Your task to perform on an android device: What's the weather going to be tomorrow? Image 0: 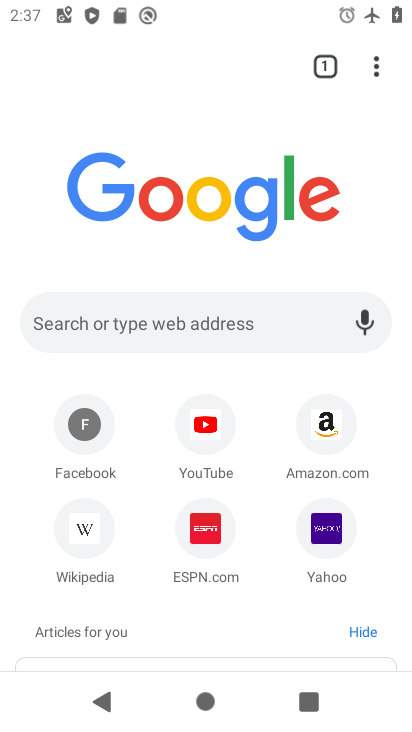
Step 0: press home button
Your task to perform on an android device: What's the weather going to be tomorrow? Image 1: 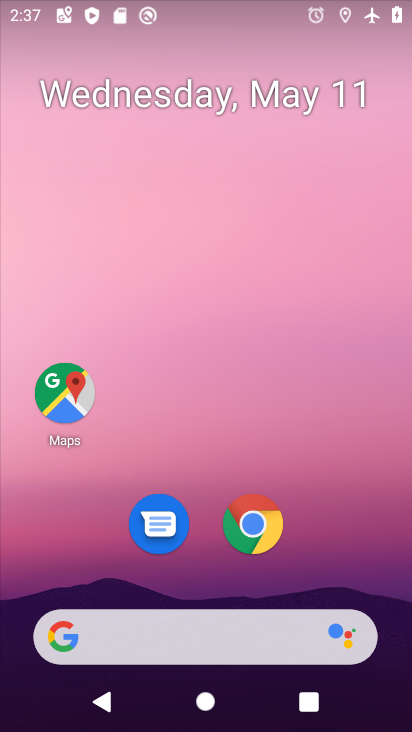
Step 1: click (261, 644)
Your task to perform on an android device: What's the weather going to be tomorrow? Image 2: 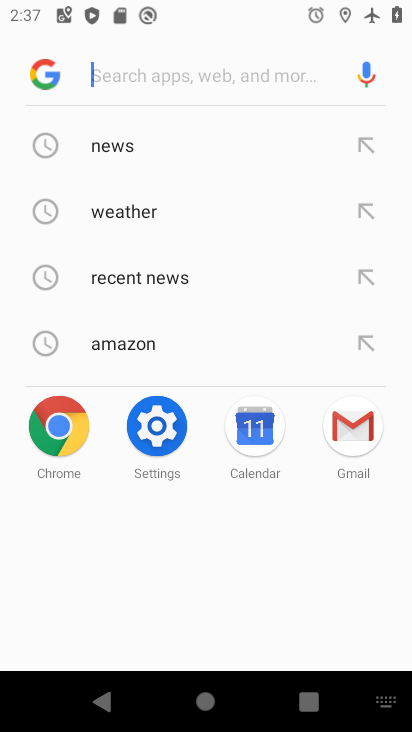
Step 2: click (39, 64)
Your task to perform on an android device: What's the weather going to be tomorrow? Image 3: 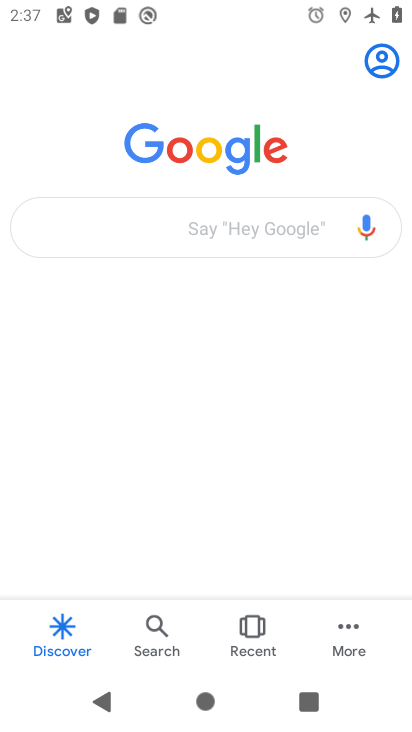
Step 3: click (193, 211)
Your task to perform on an android device: What's the weather going to be tomorrow? Image 4: 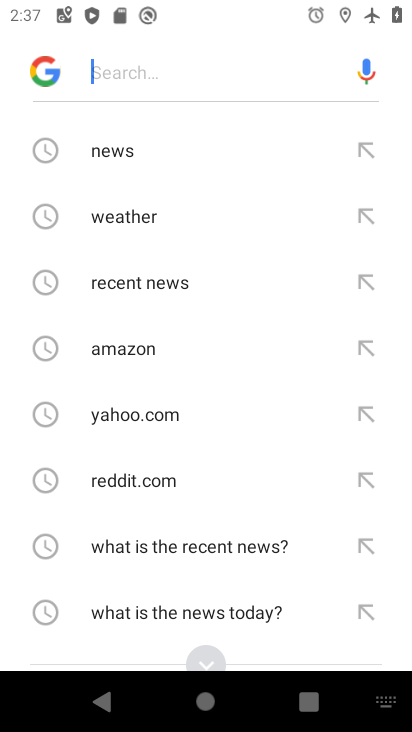
Step 4: click (137, 208)
Your task to perform on an android device: What's the weather going to be tomorrow? Image 5: 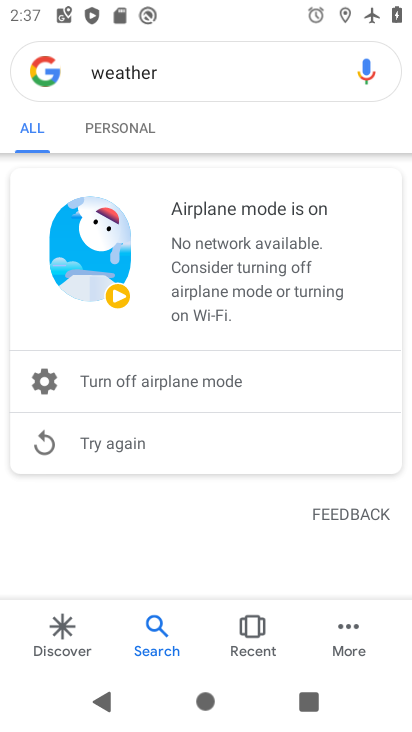
Step 5: task complete